Your task to perform on an android device: Open the map Image 0: 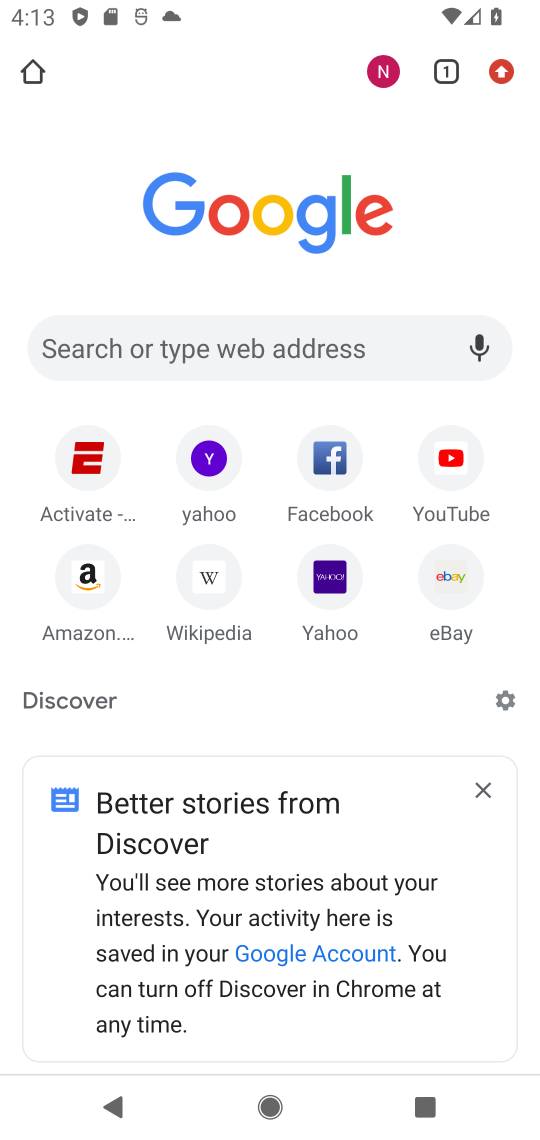
Step 0: press home button
Your task to perform on an android device: Open the map Image 1: 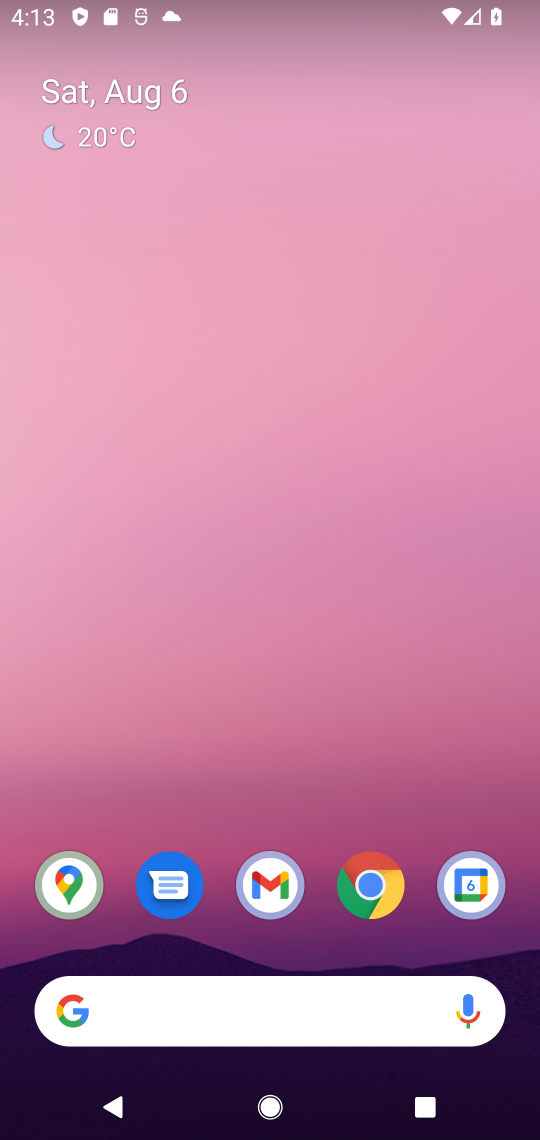
Step 1: drag from (452, 951) to (222, 49)
Your task to perform on an android device: Open the map Image 2: 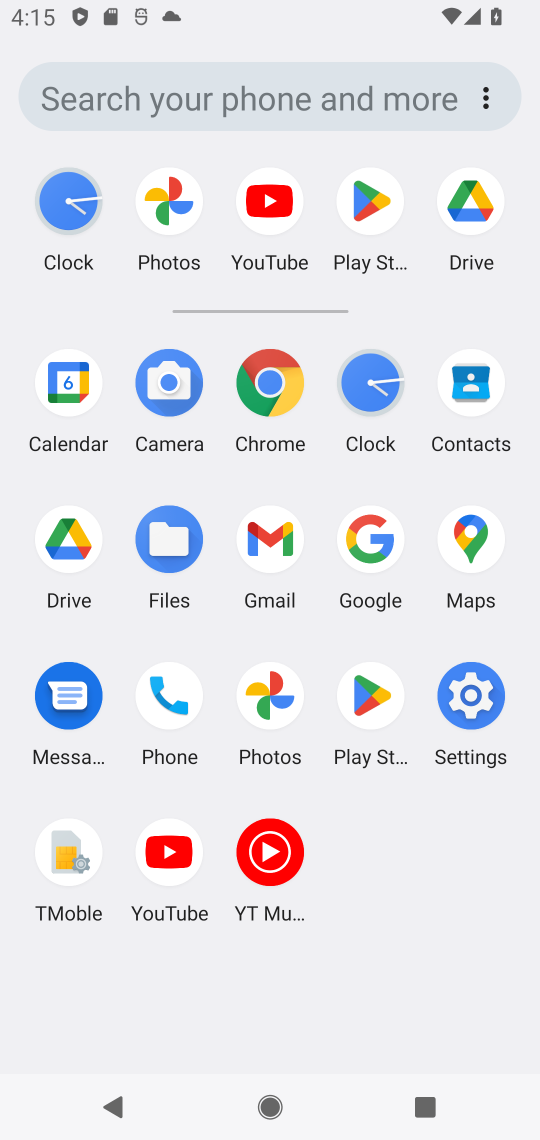
Step 2: click (445, 547)
Your task to perform on an android device: Open the map Image 3: 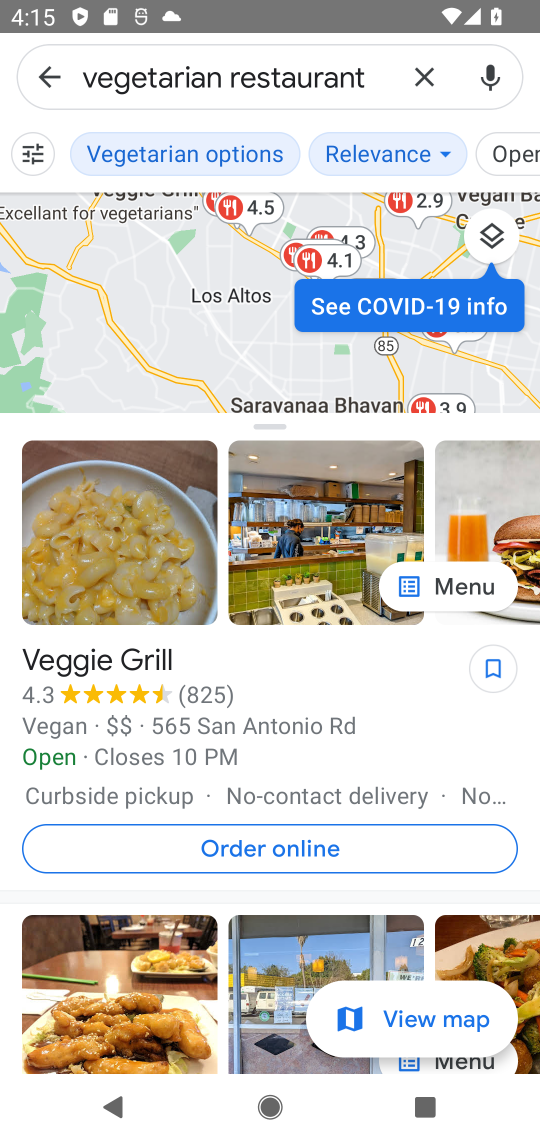
Step 3: click (421, 82)
Your task to perform on an android device: Open the map Image 4: 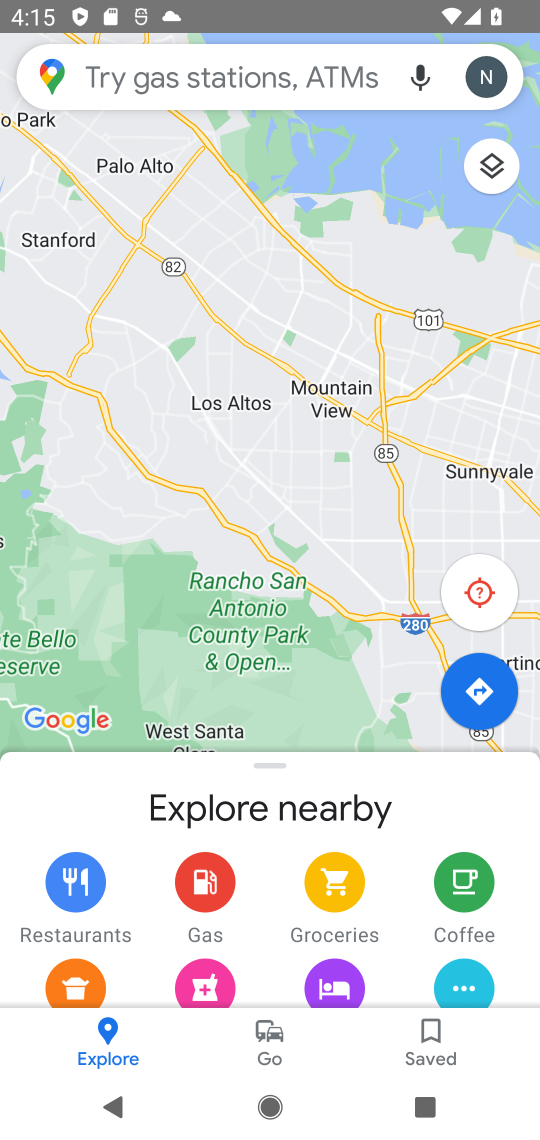
Step 4: task complete